Your task to perform on an android device: Open the stopwatch Image 0: 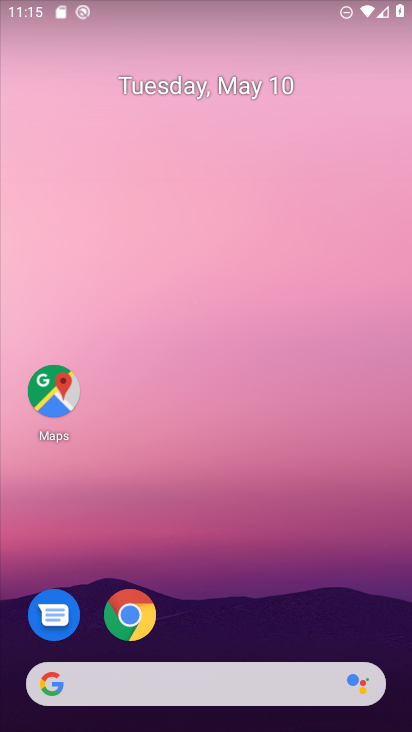
Step 0: drag from (178, 449) to (204, 267)
Your task to perform on an android device: Open the stopwatch Image 1: 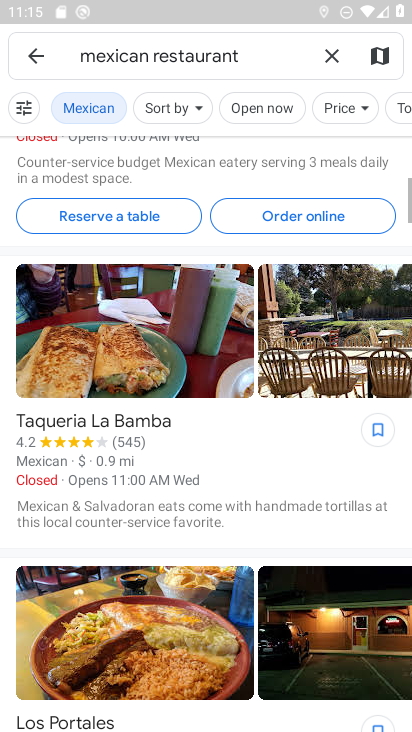
Step 1: press home button
Your task to perform on an android device: Open the stopwatch Image 2: 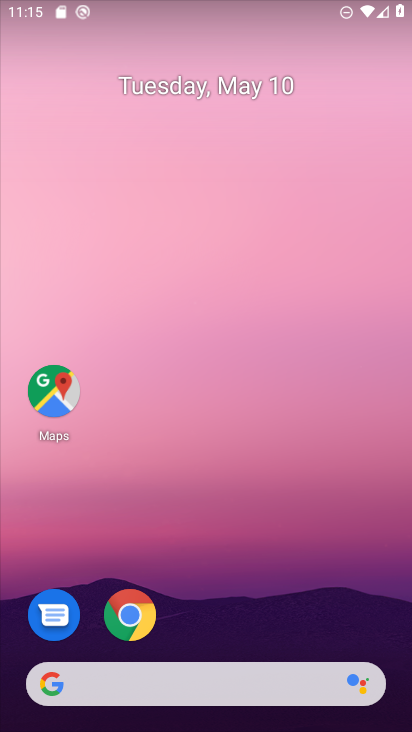
Step 2: drag from (183, 653) to (237, 204)
Your task to perform on an android device: Open the stopwatch Image 3: 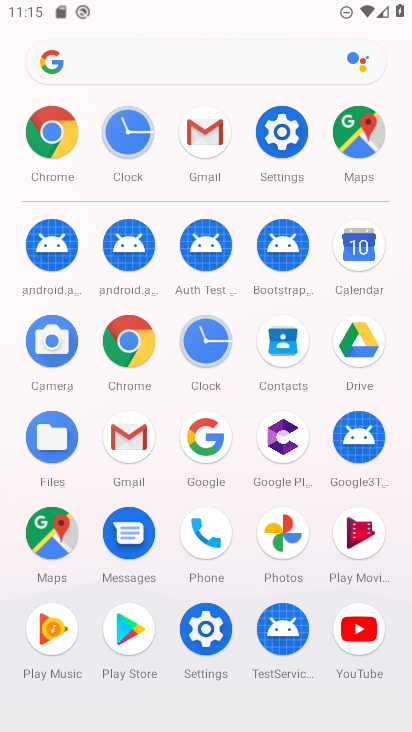
Step 3: click (178, 335)
Your task to perform on an android device: Open the stopwatch Image 4: 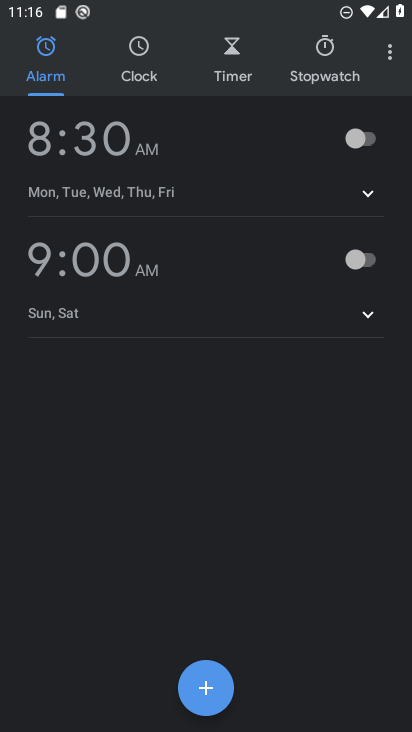
Step 4: click (329, 62)
Your task to perform on an android device: Open the stopwatch Image 5: 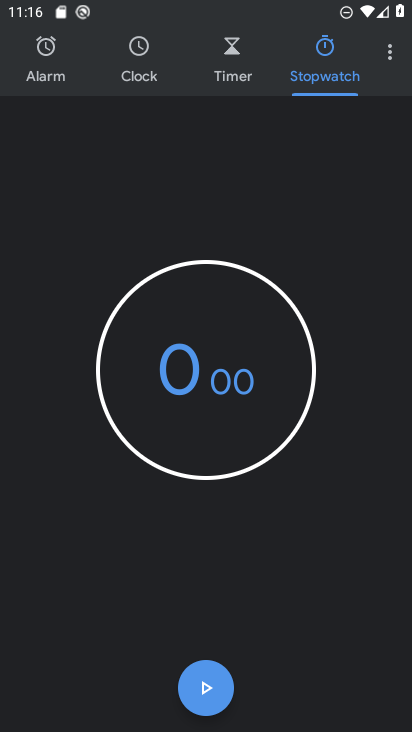
Step 5: click (211, 692)
Your task to perform on an android device: Open the stopwatch Image 6: 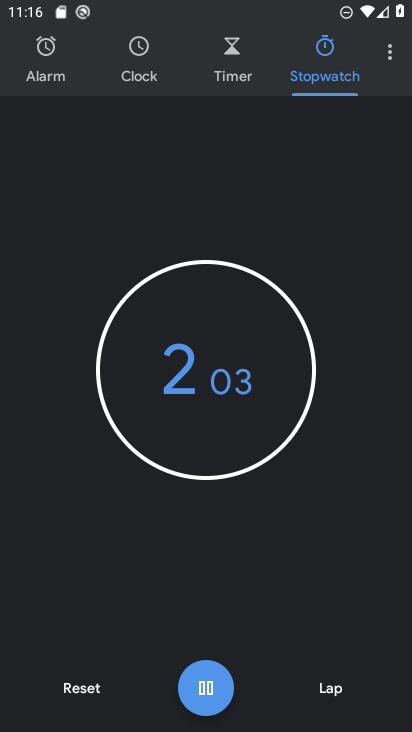
Step 6: task complete